Your task to perform on an android device: Open the stopwatch Image 0: 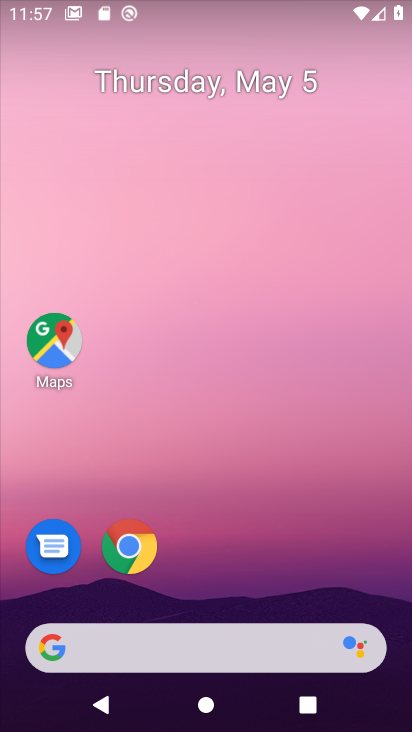
Step 0: drag from (314, 637) to (194, 56)
Your task to perform on an android device: Open the stopwatch Image 1: 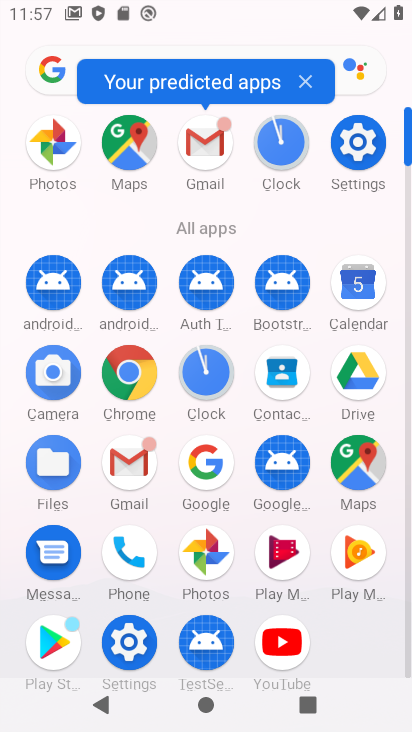
Step 1: click (214, 380)
Your task to perform on an android device: Open the stopwatch Image 2: 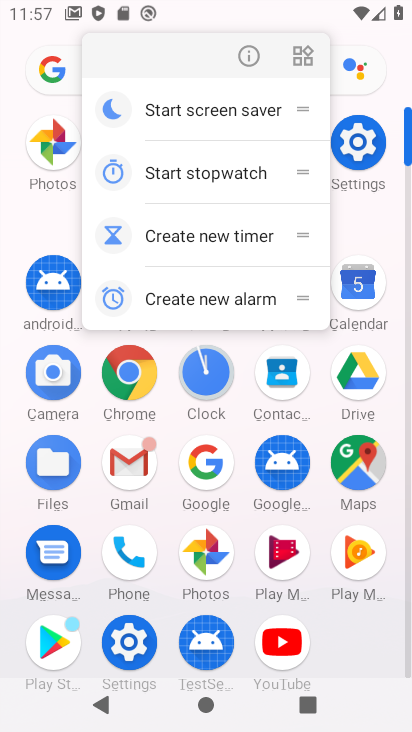
Step 2: click (214, 380)
Your task to perform on an android device: Open the stopwatch Image 3: 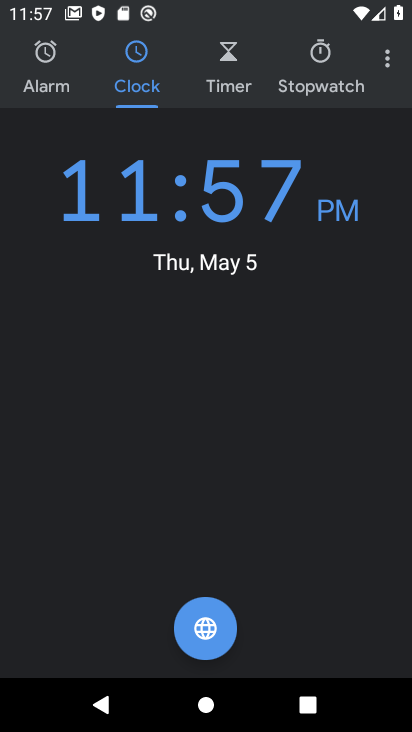
Step 3: click (320, 60)
Your task to perform on an android device: Open the stopwatch Image 4: 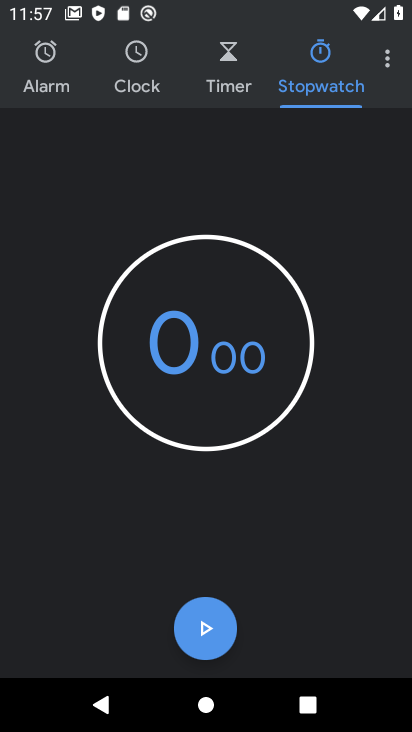
Step 4: task complete